Your task to perform on an android device: Open calendar and show me the second week of next month Image 0: 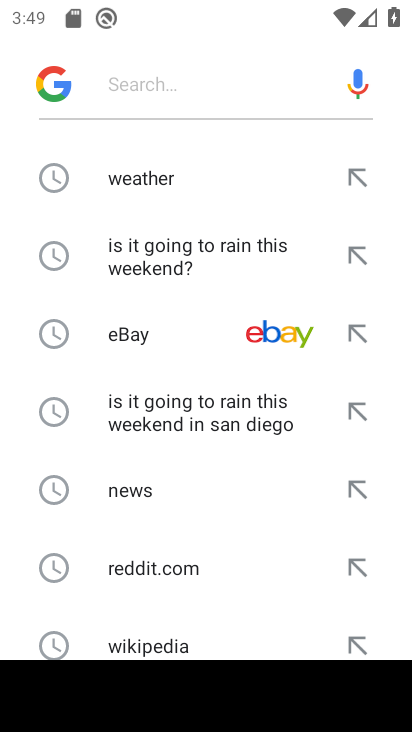
Step 0: press back button
Your task to perform on an android device: Open calendar and show me the second week of next month Image 1: 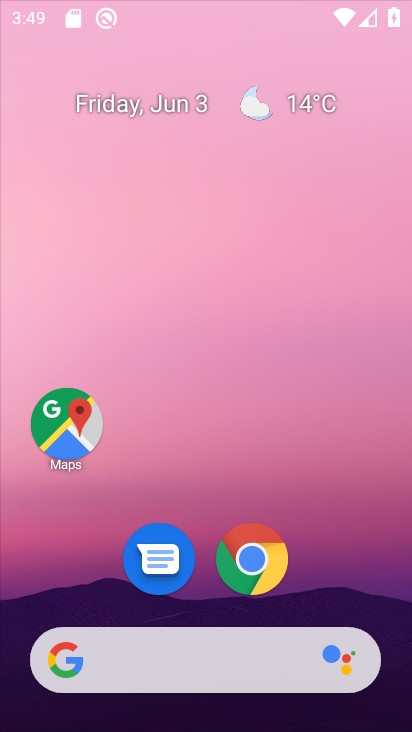
Step 1: press home button
Your task to perform on an android device: Open calendar and show me the second week of next month Image 2: 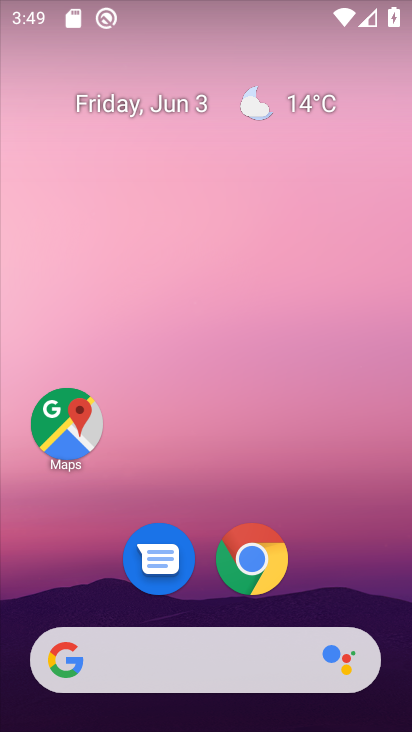
Step 2: drag from (228, 723) to (148, 181)
Your task to perform on an android device: Open calendar and show me the second week of next month Image 3: 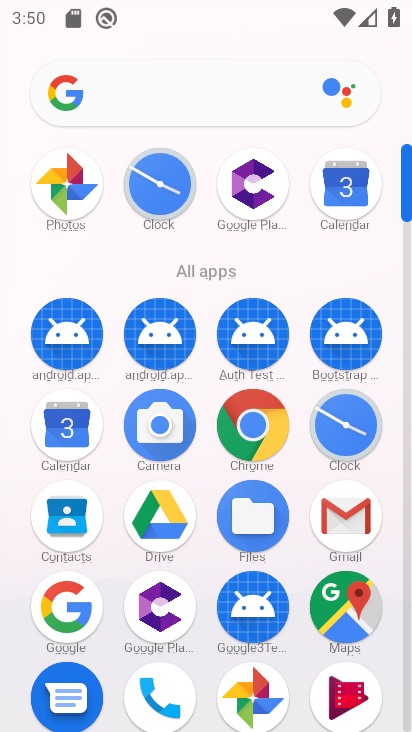
Step 3: click (66, 440)
Your task to perform on an android device: Open calendar and show me the second week of next month Image 4: 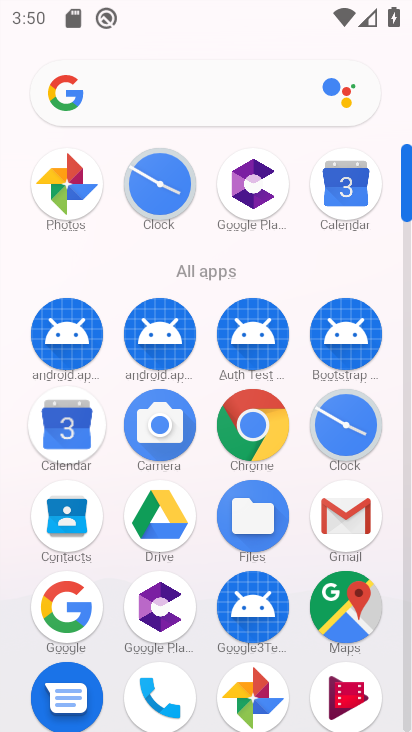
Step 4: click (66, 440)
Your task to perform on an android device: Open calendar and show me the second week of next month Image 5: 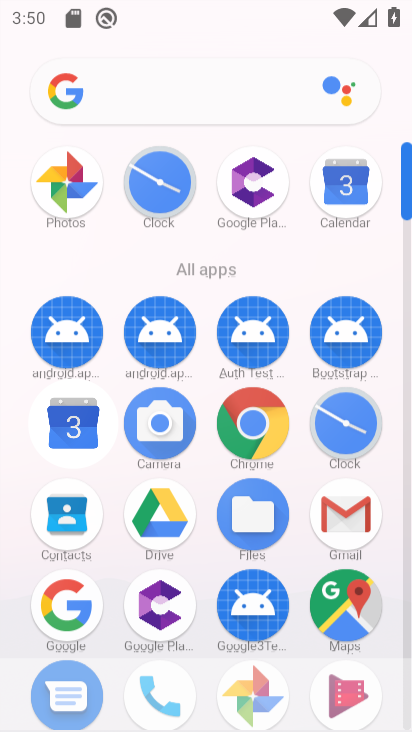
Step 5: click (66, 439)
Your task to perform on an android device: Open calendar and show me the second week of next month Image 6: 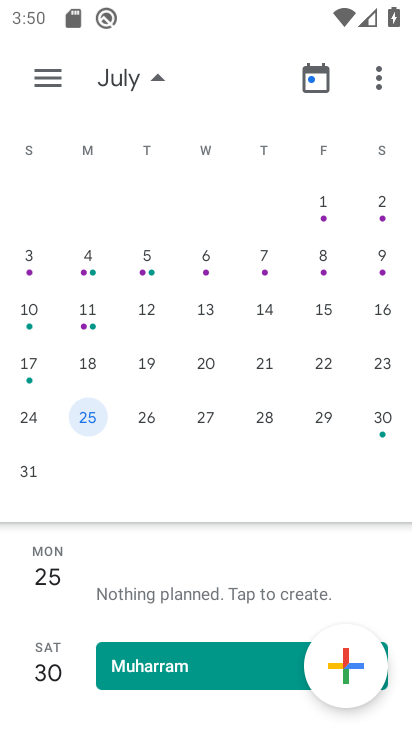
Step 6: click (268, 256)
Your task to perform on an android device: Open calendar and show me the second week of next month Image 7: 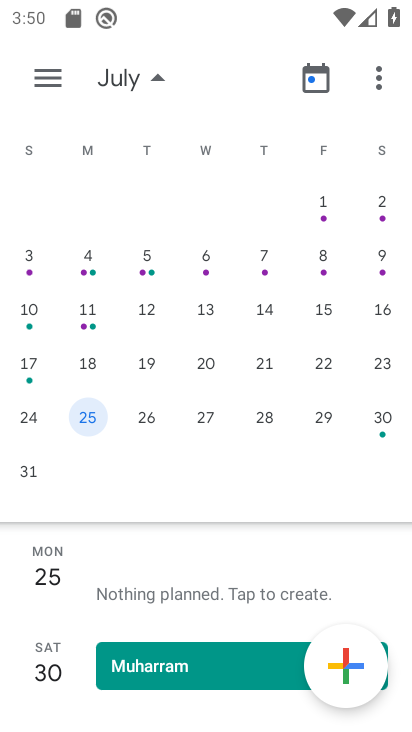
Step 7: click (269, 252)
Your task to perform on an android device: Open calendar and show me the second week of next month Image 8: 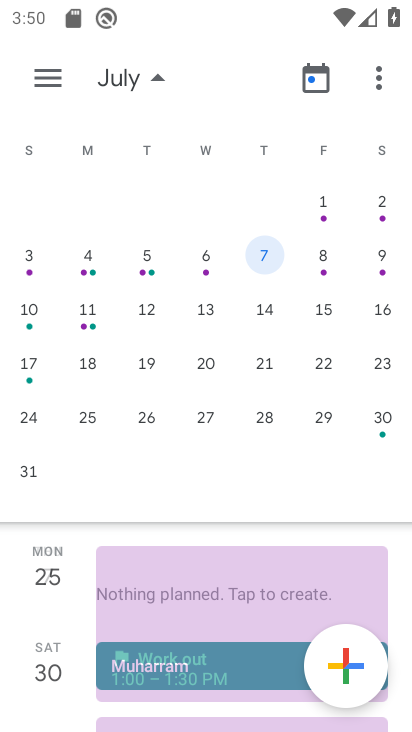
Step 8: click (269, 252)
Your task to perform on an android device: Open calendar and show me the second week of next month Image 9: 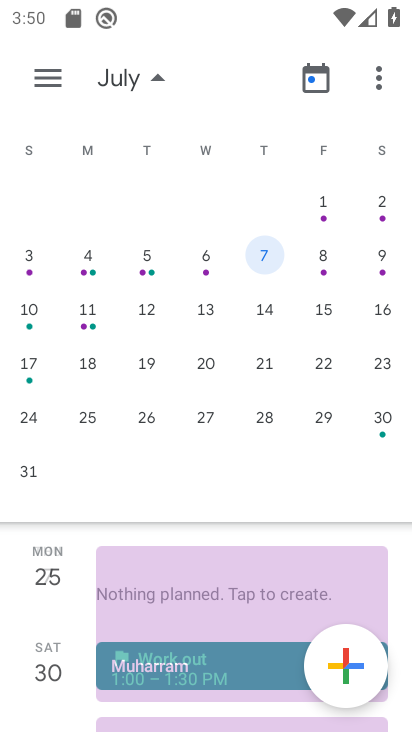
Step 9: click (269, 252)
Your task to perform on an android device: Open calendar and show me the second week of next month Image 10: 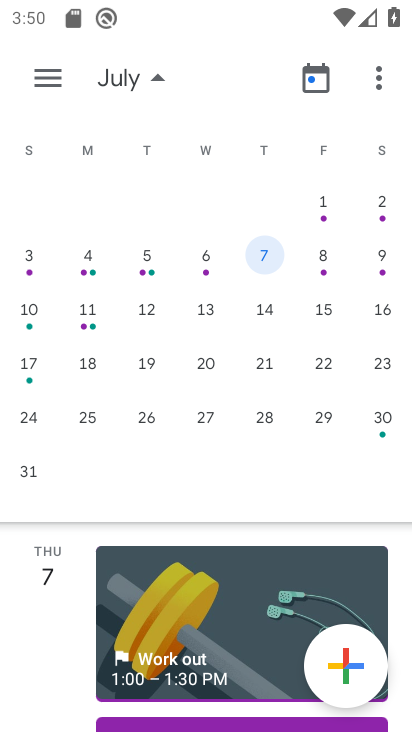
Step 10: click (269, 252)
Your task to perform on an android device: Open calendar and show me the second week of next month Image 11: 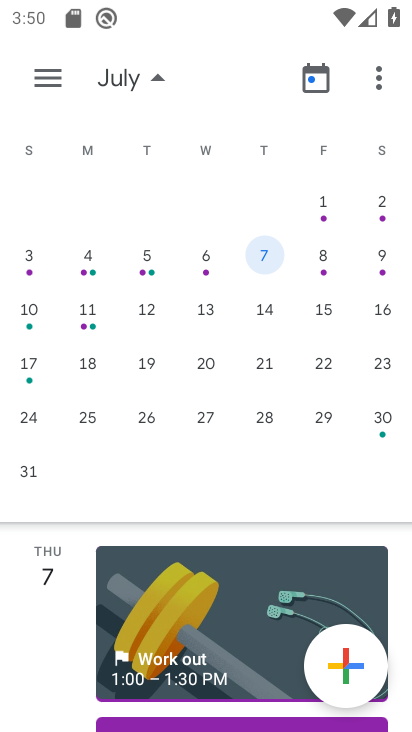
Step 11: press back button
Your task to perform on an android device: Open calendar and show me the second week of next month Image 12: 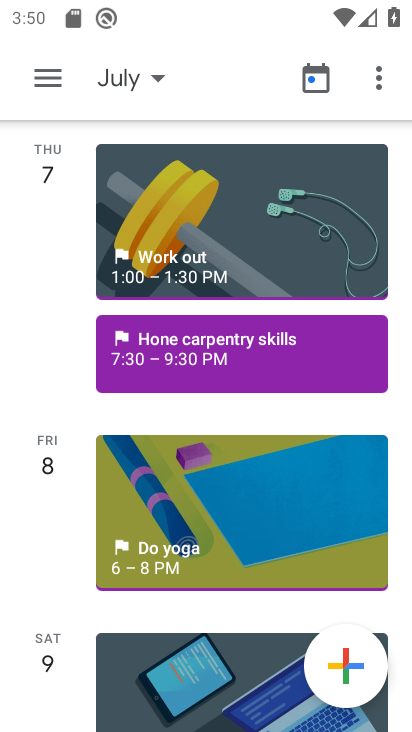
Step 12: press home button
Your task to perform on an android device: Open calendar and show me the second week of next month Image 13: 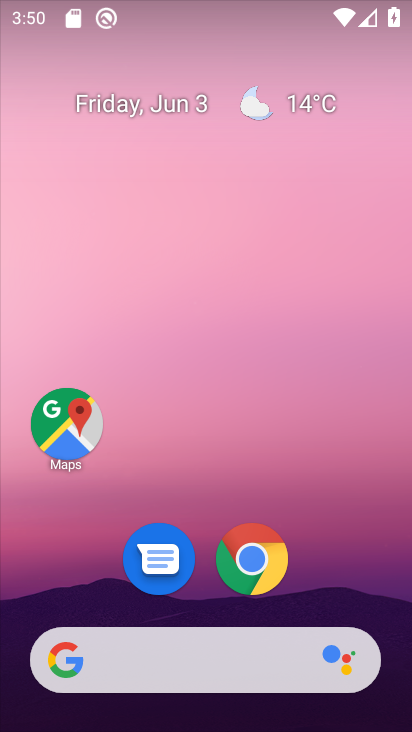
Step 13: drag from (225, 559) to (204, 121)
Your task to perform on an android device: Open calendar and show me the second week of next month Image 14: 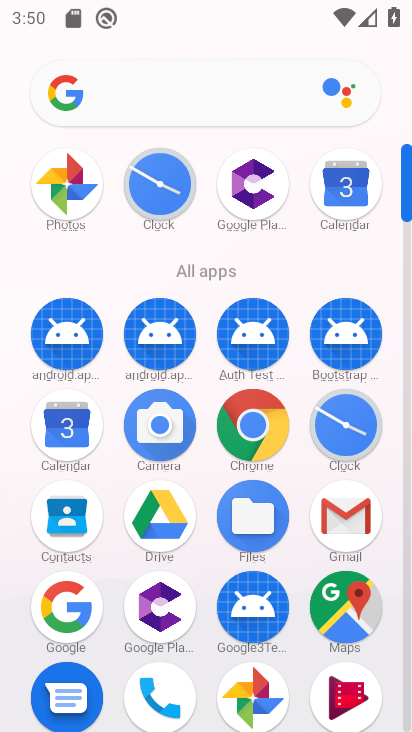
Step 14: drag from (53, 387) to (52, 432)
Your task to perform on an android device: Open calendar and show me the second week of next month Image 15: 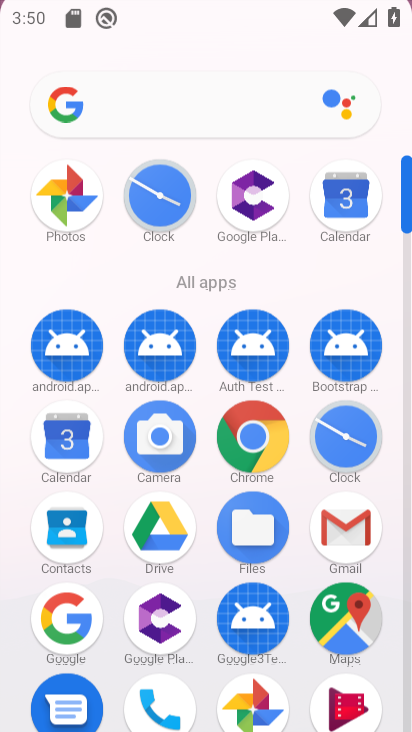
Step 15: click (52, 423)
Your task to perform on an android device: Open calendar and show me the second week of next month Image 16: 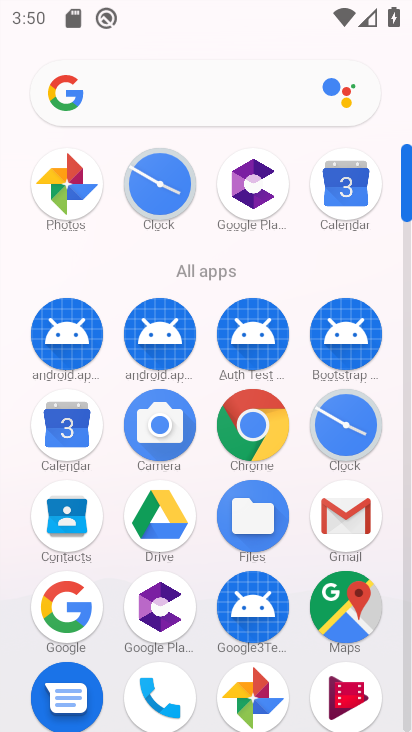
Step 16: click (52, 423)
Your task to perform on an android device: Open calendar and show me the second week of next month Image 17: 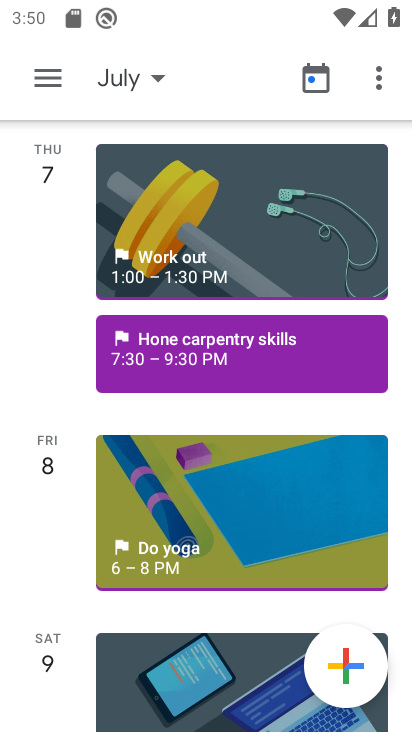
Step 17: click (152, 74)
Your task to perform on an android device: Open calendar and show me the second week of next month Image 18: 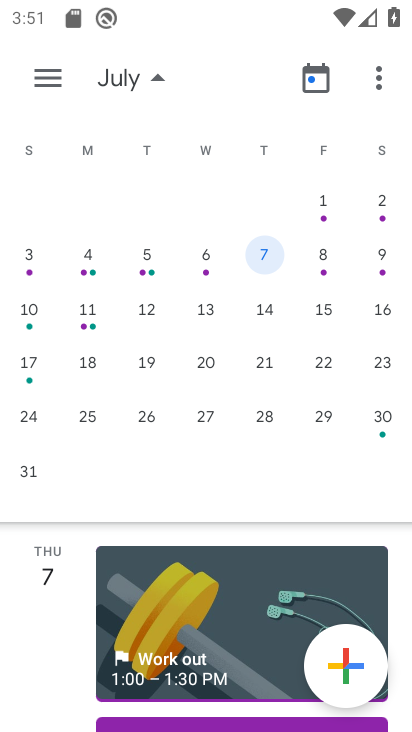
Step 18: task complete